Your task to perform on an android device: turn on location history Image 0: 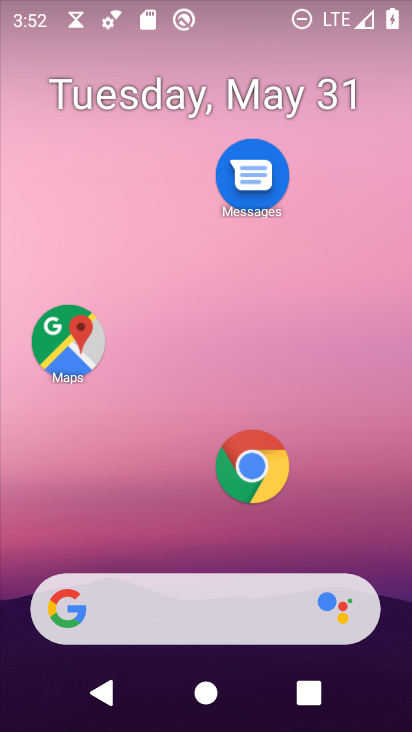
Step 0: click (139, 41)
Your task to perform on an android device: turn on location history Image 1: 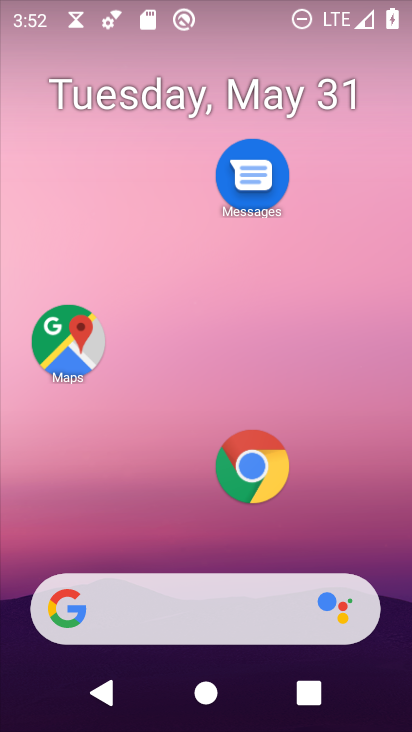
Step 1: drag from (133, 476) to (161, 84)
Your task to perform on an android device: turn on location history Image 2: 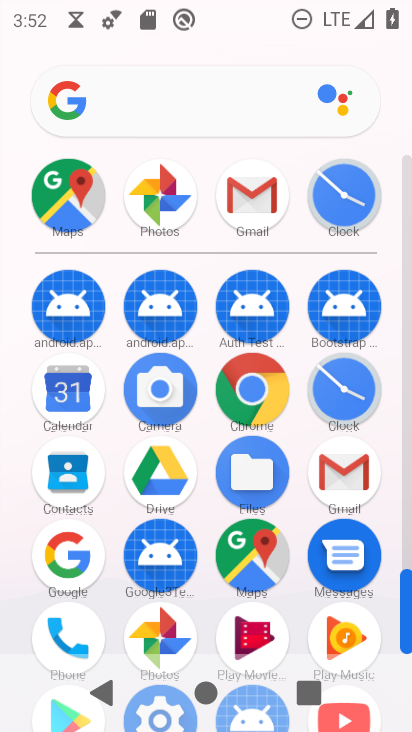
Step 2: drag from (179, 570) to (200, 197)
Your task to perform on an android device: turn on location history Image 3: 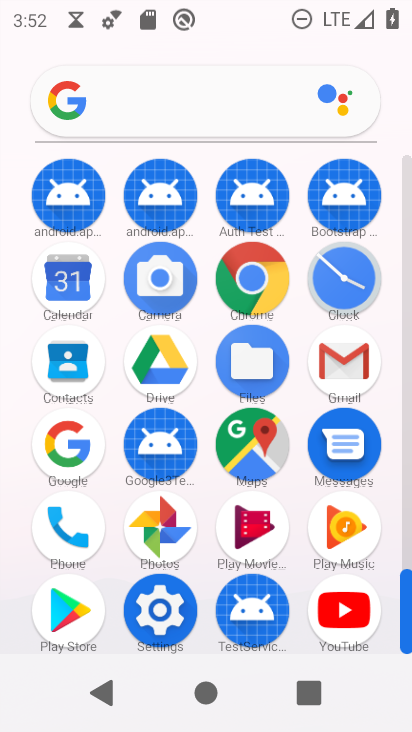
Step 3: click (155, 615)
Your task to perform on an android device: turn on location history Image 4: 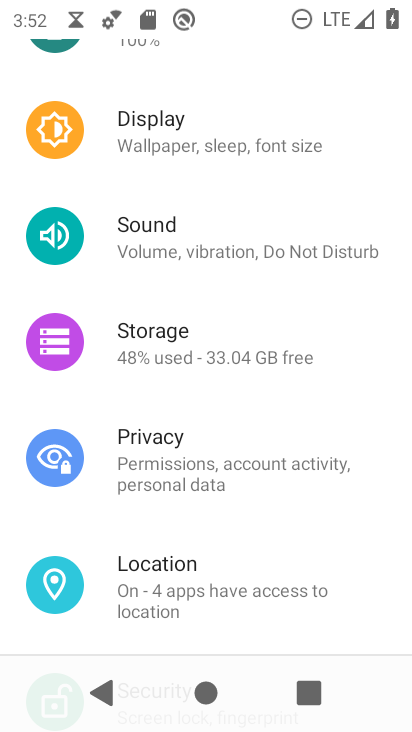
Step 4: click (145, 584)
Your task to perform on an android device: turn on location history Image 5: 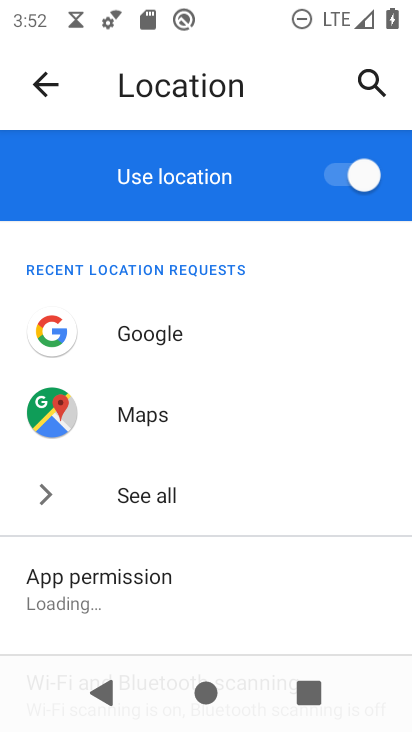
Step 5: drag from (170, 595) to (256, 150)
Your task to perform on an android device: turn on location history Image 6: 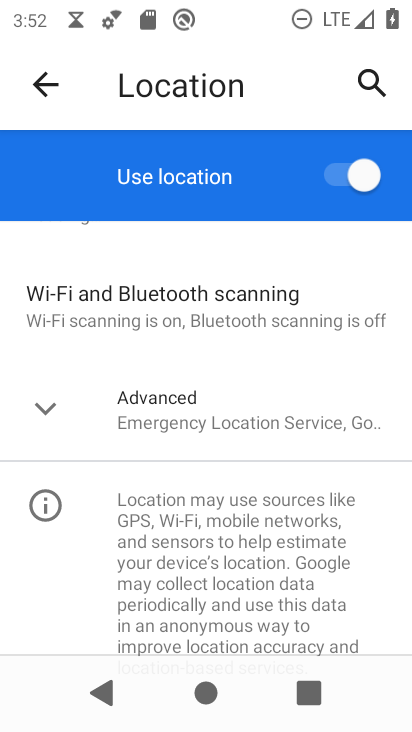
Step 6: click (191, 408)
Your task to perform on an android device: turn on location history Image 7: 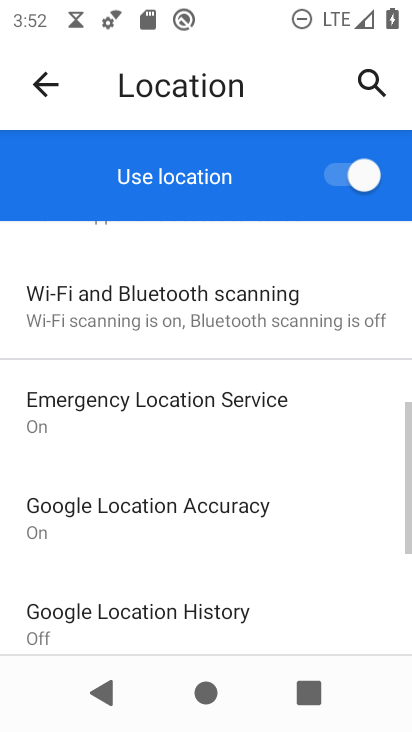
Step 7: click (146, 606)
Your task to perform on an android device: turn on location history Image 8: 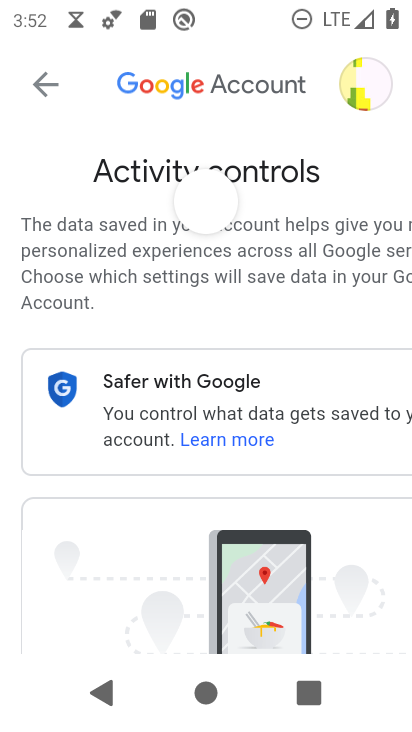
Step 8: task complete